Your task to perform on an android device: Is it going to rain today? Image 0: 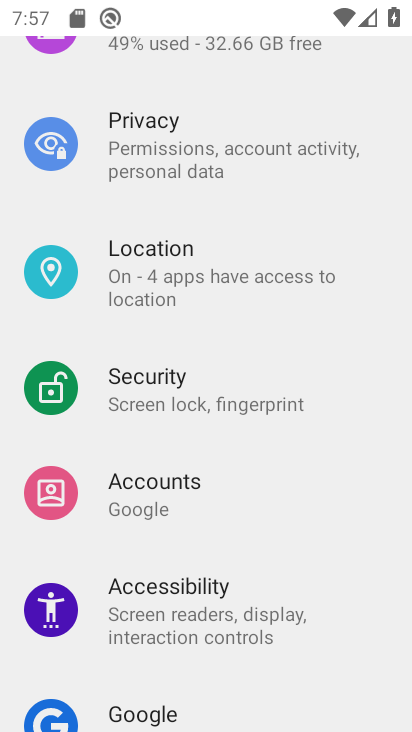
Step 0: press home button
Your task to perform on an android device: Is it going to rain today? Image 1: 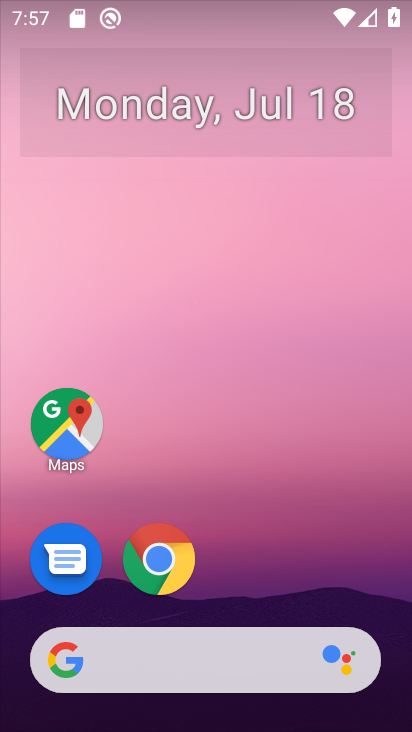
Step 1: click (254, 684)
Your task to perform on an android device: Is it going to rain today? Image 2: 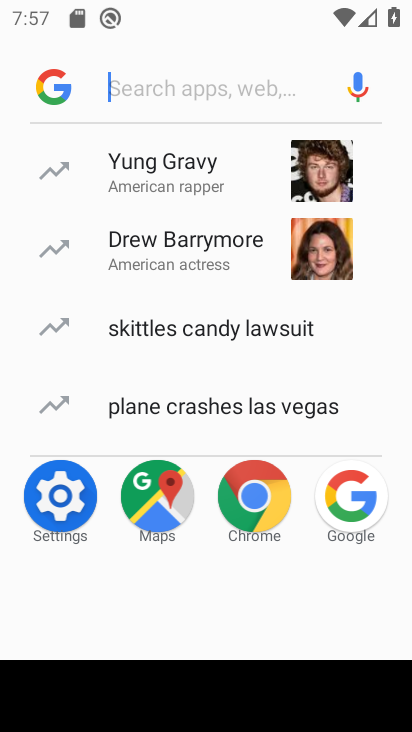
Step 2: type "weather"
Your task to perform on an android device: Is it going to rain today? Image 3: 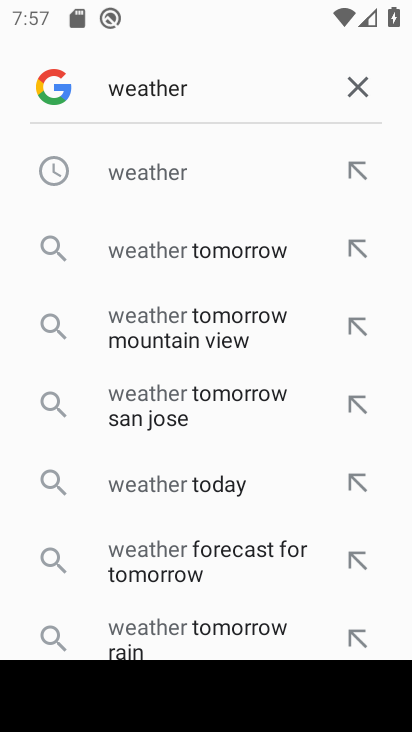
Step 3: click (220, 171)
Your task to perform on an android device: Is it going to rain today? Image 4: 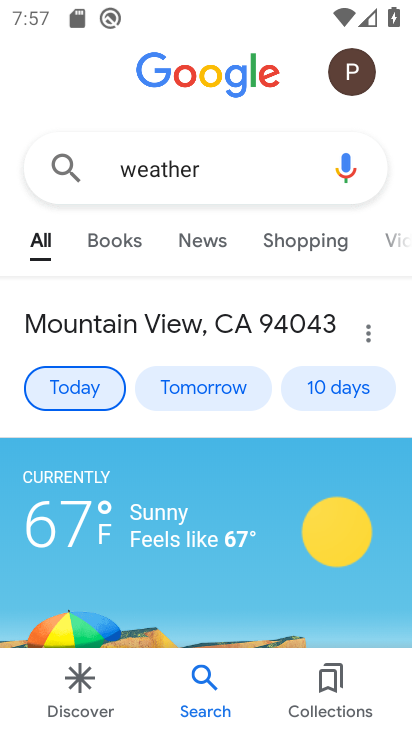
Step 4: task complete